Your task to perform on an android device: open app "Spotify" (install if not already installed), go to login, and select forgot password Image 0: 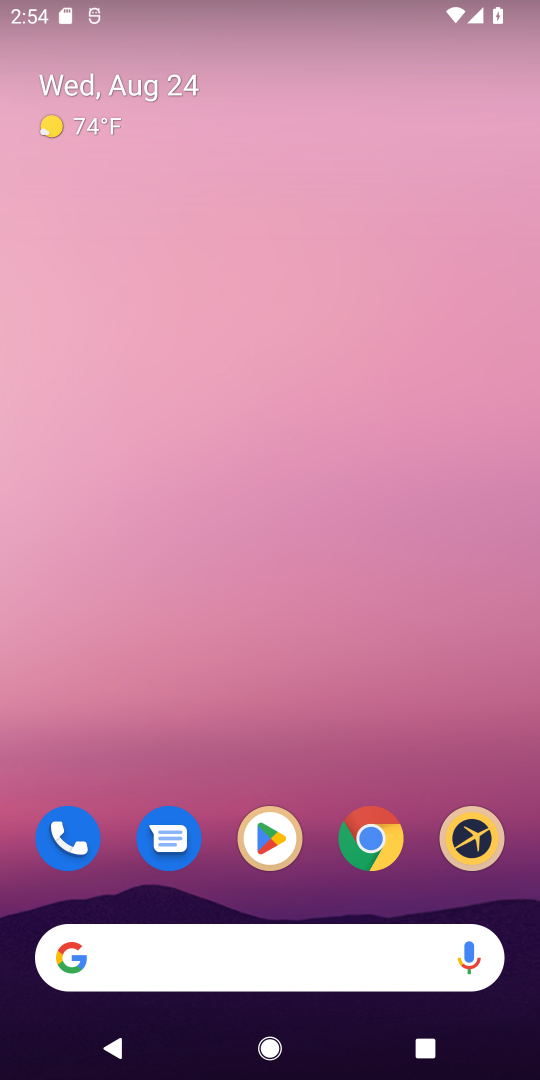
Step 0: click (252, 861)
Your task to perform on an android device: open app "Spotify" (install if not already installed), go to login, and select forgot password Image 1: 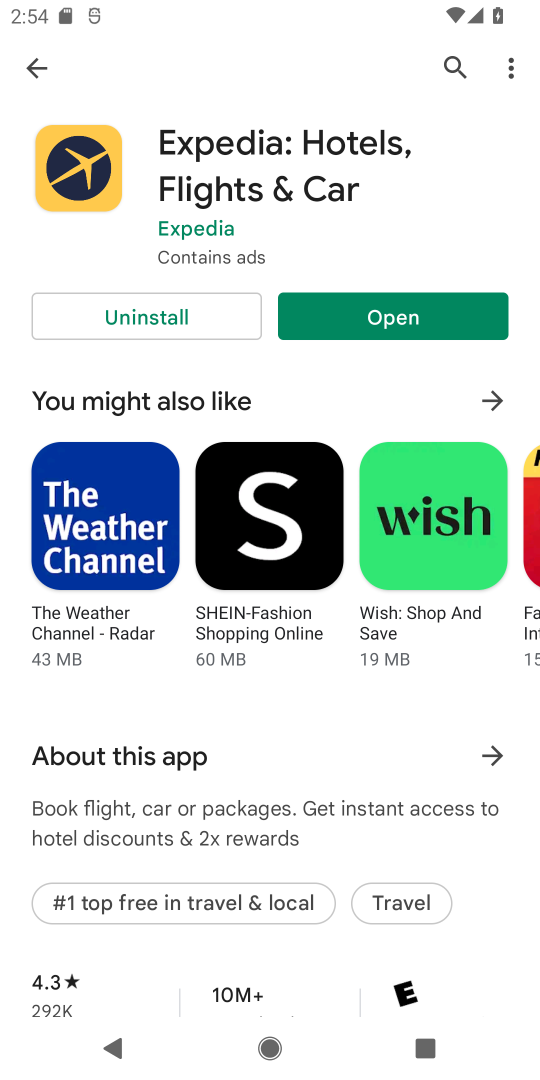
Step 1: click (463, 79)
Your task to perform on an android device: open app "Spotify" (install if not already installed), go to login, and select forgot password Image 2: 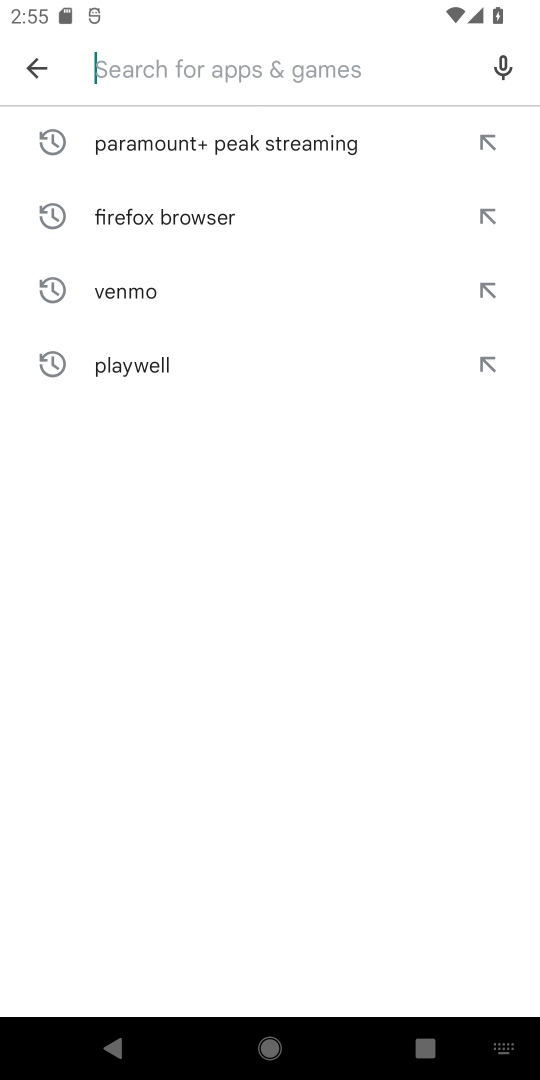
Step 2: type "Spotify"
Your task to perform on an android device: open app "Spotify" (install if not already installed), go to login, and select forgot password Image 3: 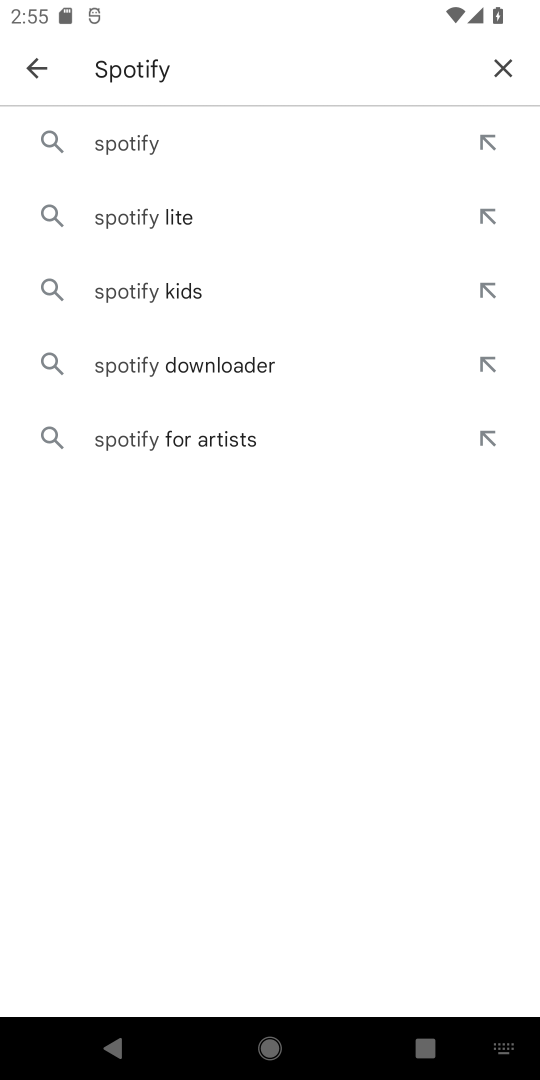
Step 3: click (115, 139)
Your task to perform on an android device: open app "Spotify" (install if not already installed), go to login, and select forgot password Image 4: 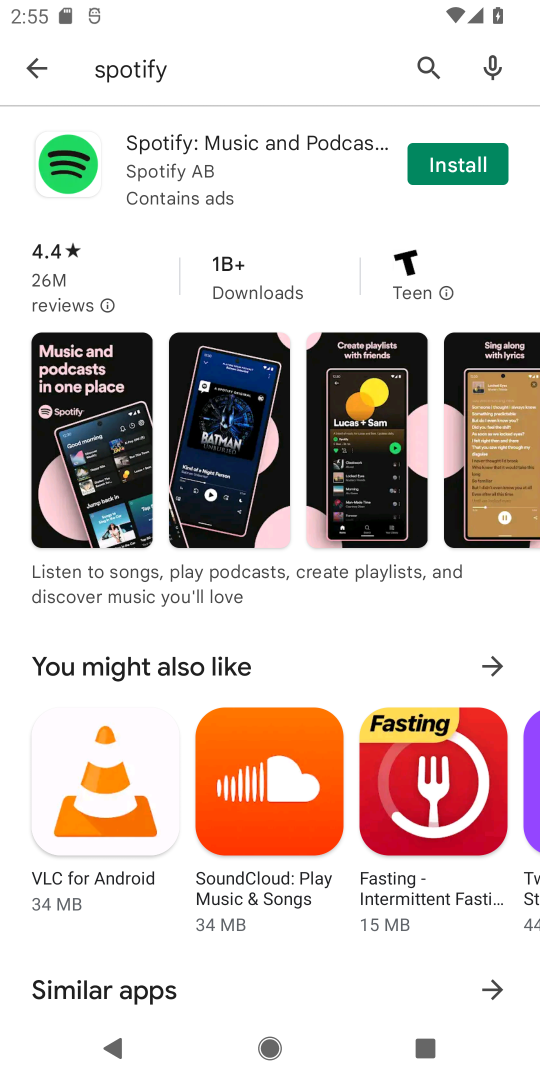
Step 4: click (422, 178)
Your task to perform on an android device: open app "Spotify" (install if not already installed), go to login, and select forgot password Image 5: 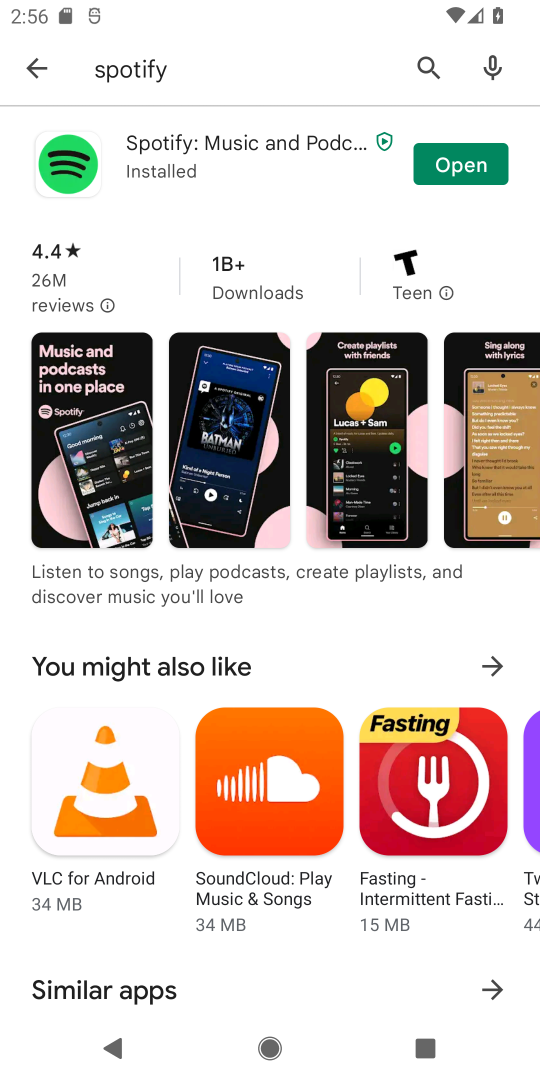
Step 5: click (467, 167)
Your task to perform on an android device: open app "Spotify" (install if not already installed), go to login, and select forgot password Image 6: 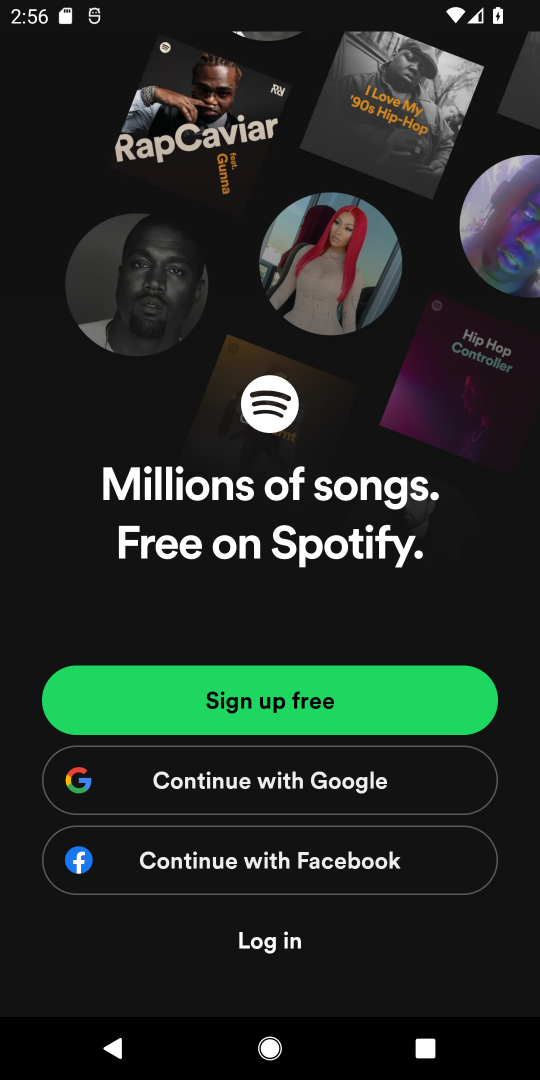
Step 6: click (259, 934)
Your task to perform on an android device: open app "Spotify" (install if not already installed), go to login, and select forgot password Image 7: 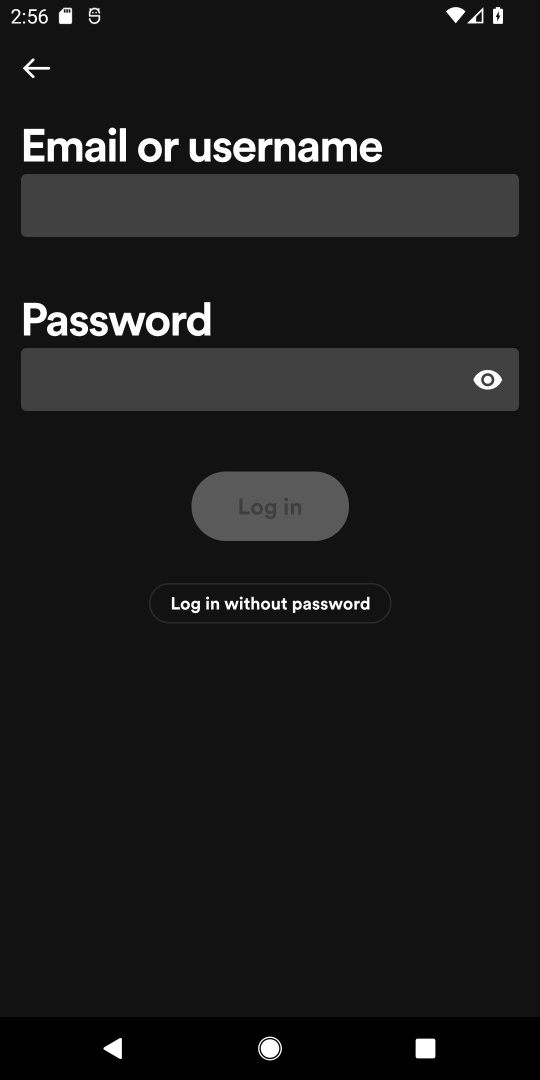
Step 7: task complete